Your task to perform on an android device: uninstall "DuckDuckGo Privacy Browser" Image 0: 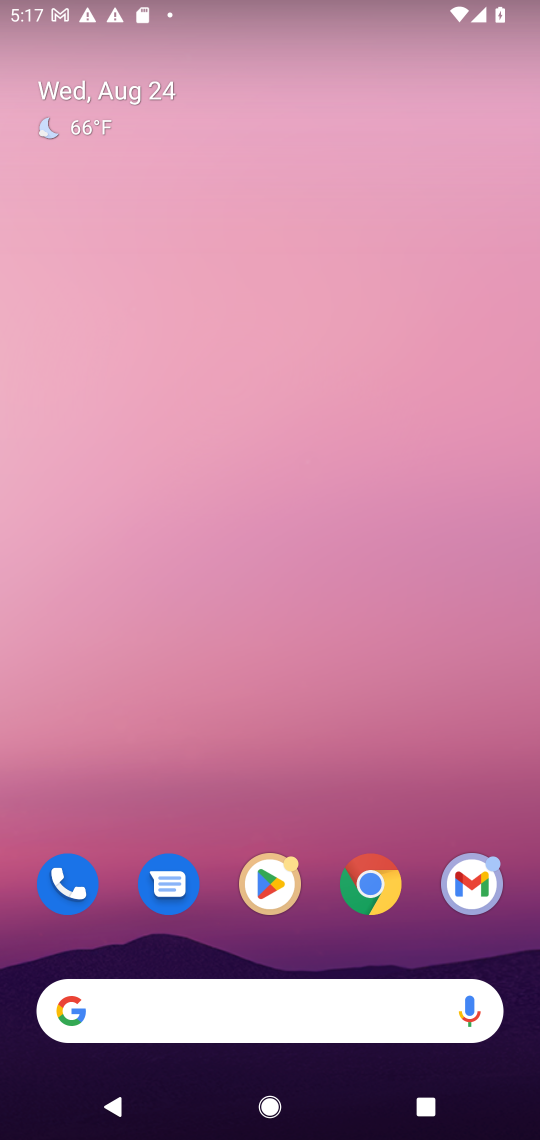
Step 0: click (261, 881)
Your task to perform on an android device: uninstall "DuckDuckGo Privacy Browser" Image 1: 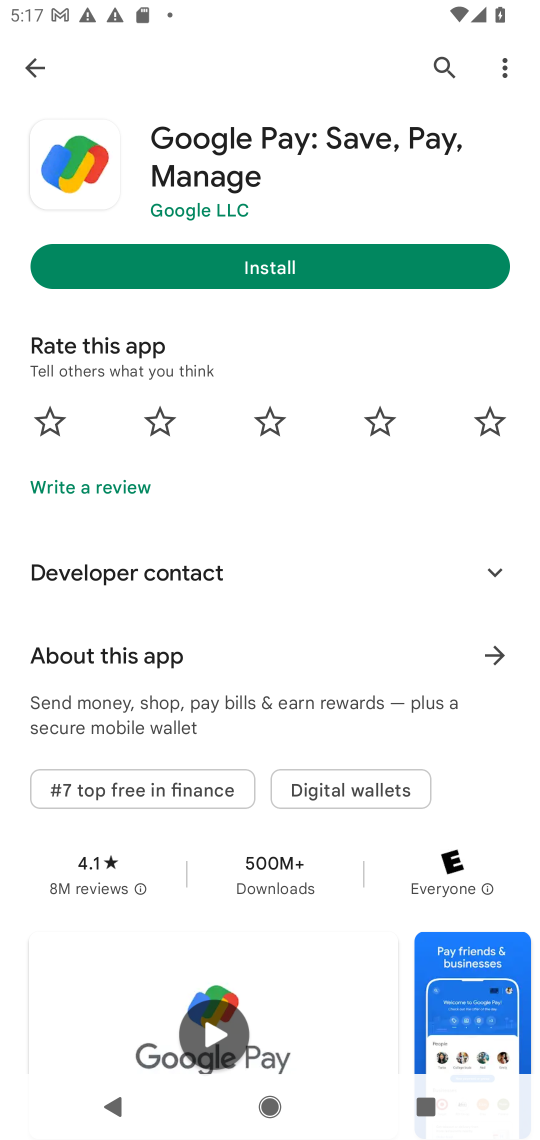
Step 1: click (32, 70)
Your task to perform on an android device: uninstall "DuckDuckGo Privacy Browser" Image 2: 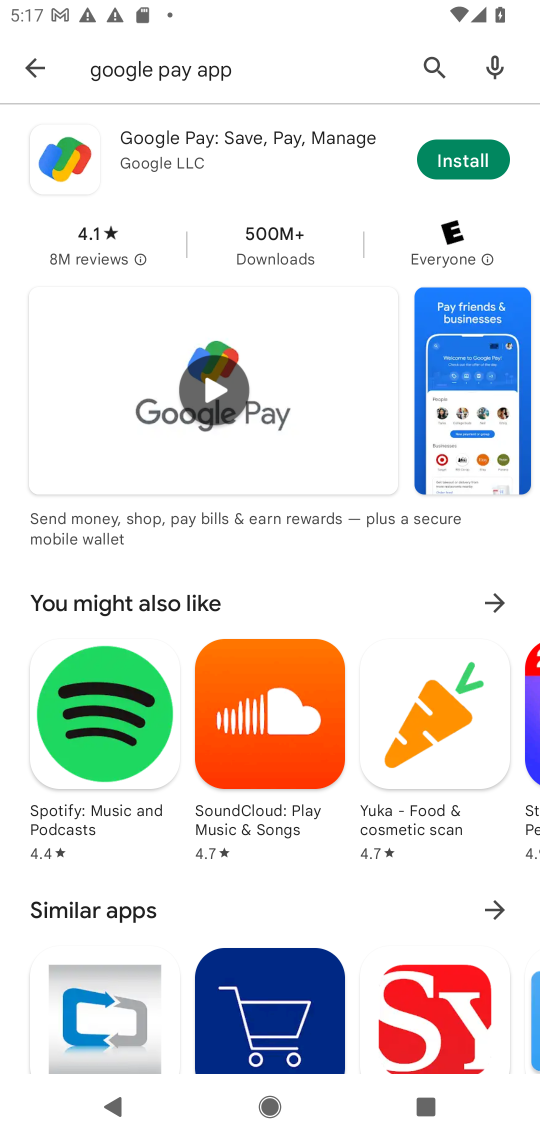
Step 2: click (35, 64)
Your task to perform on an android device: uninstall "DuckDuckGo Privacy Browser" Image 3: 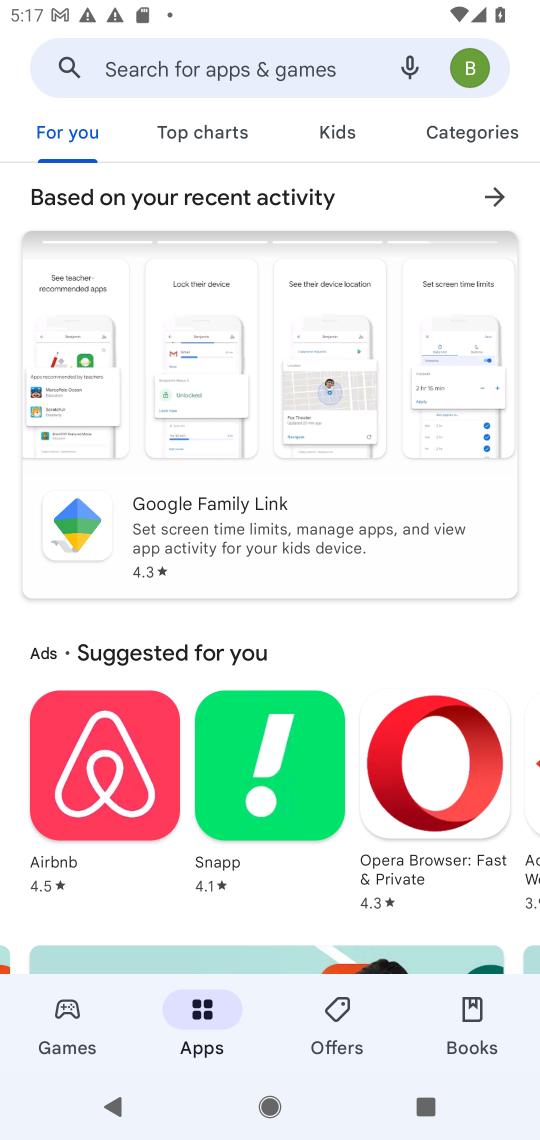
Step 3: click (231, 78)
Your task to perform on an android device: uninstall "DuckDuckGo Privacy Browser" Image 4: 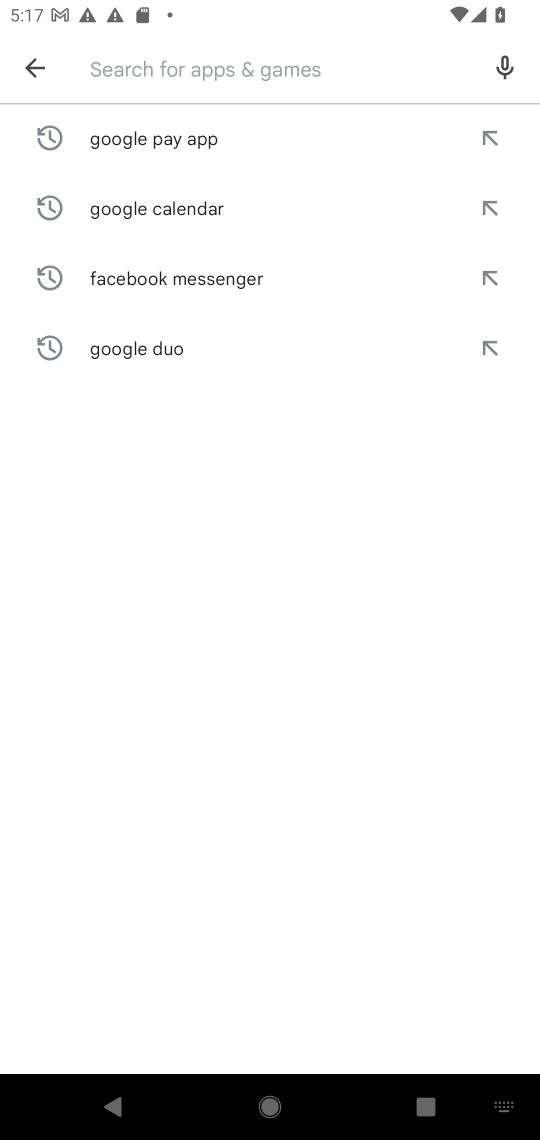
Step 4: type "DuckDuckGo Privacy Browser"
Your task to perform on an android device: uninstall "DuckDuckGo Privacy Browser" Image 5: 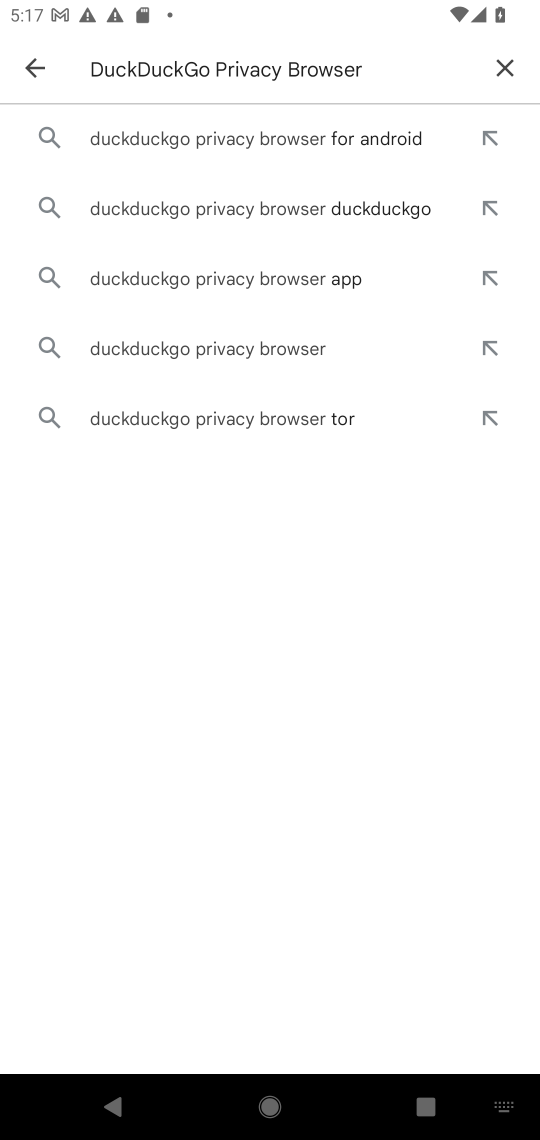
Step 5: click (150, 146)
Your task to perform on an android device: uninstall "DuckDuckGo Privacy Browser" Image 6: 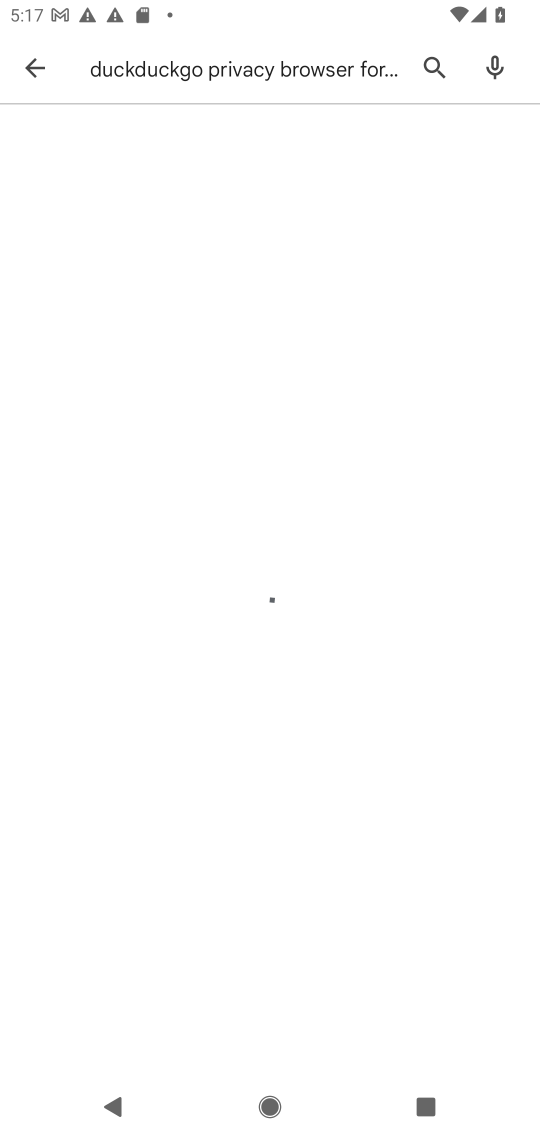
Step 6: click (150, 146)
Your task to perform on an android device: uninstall "DuckDuckGo Privacy Browser" Image 7: 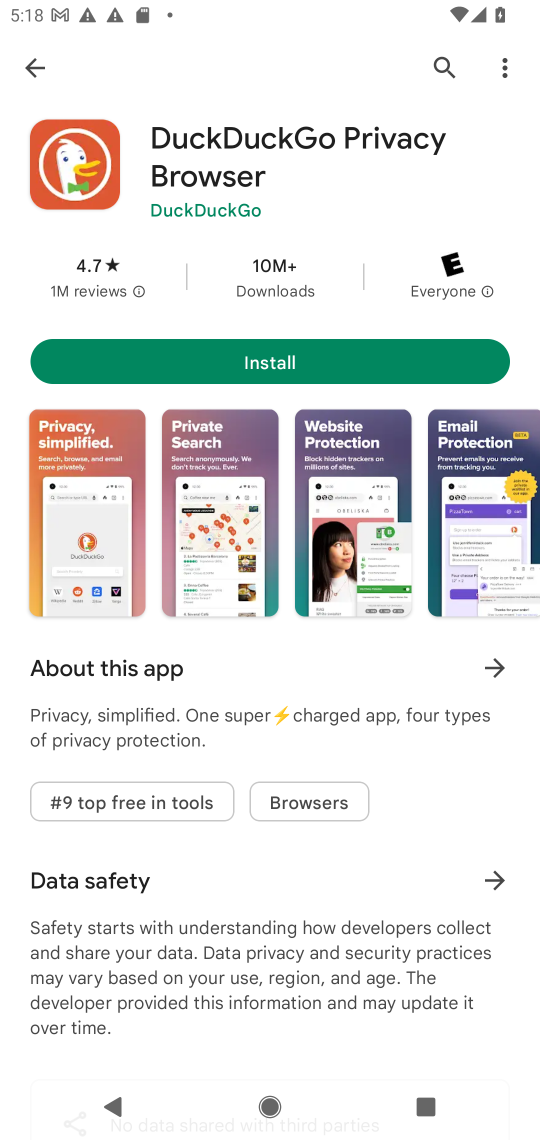
Step 7: task complete